Your task to perform on an android device: turn off sleep mode Image 0: 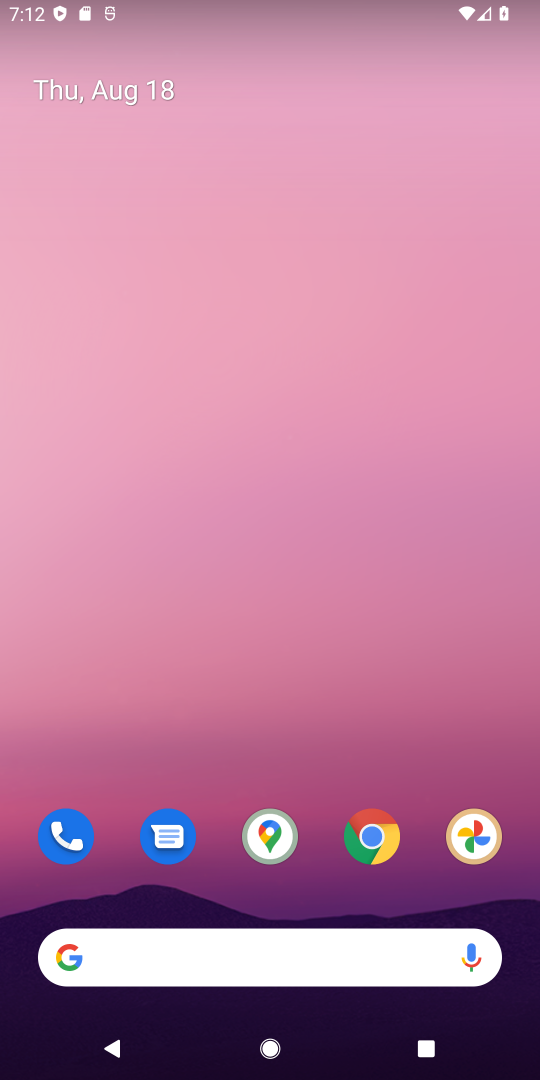
Step 0: drag from (306, 729) to (421, 35)
Your task to perform on an android device: turn off sleep mode Image 1: 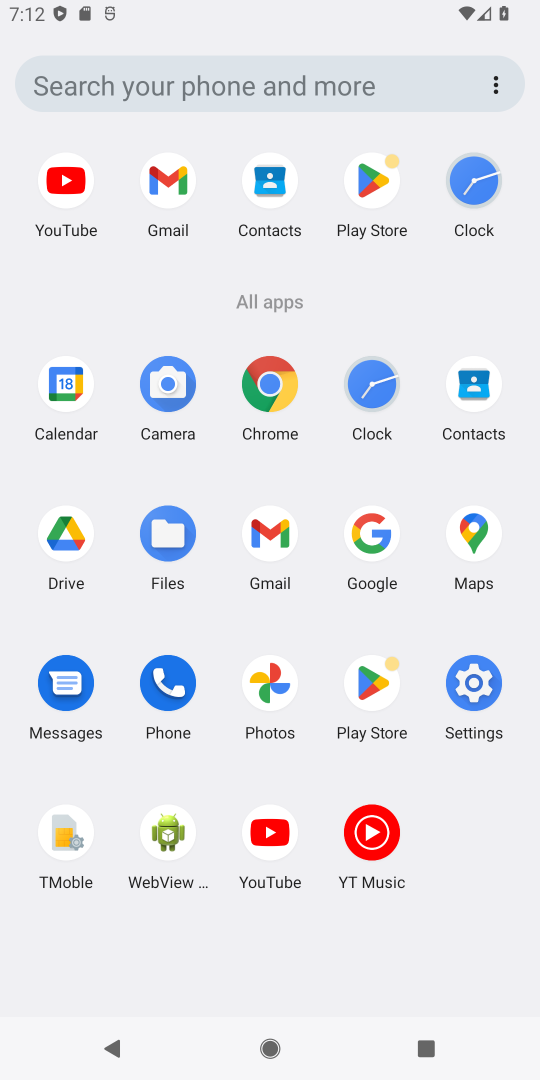
Step 1: click (475, 664)
Your task to perform on an android device: turn off sleep mode Image 2: 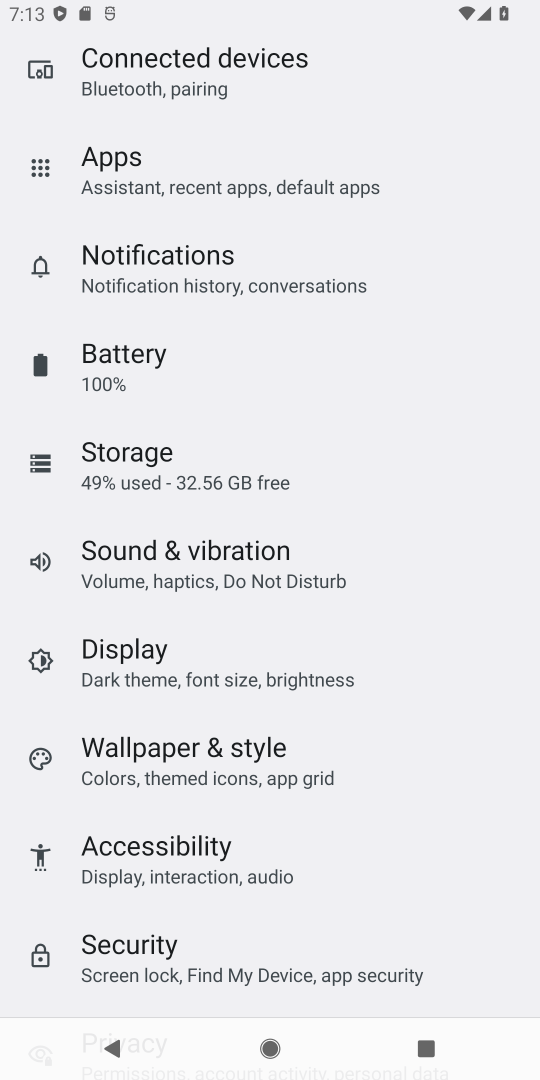
Step 2: click (139, 643)
Your task to perform on an android device: turn off sleep mode Image 3: 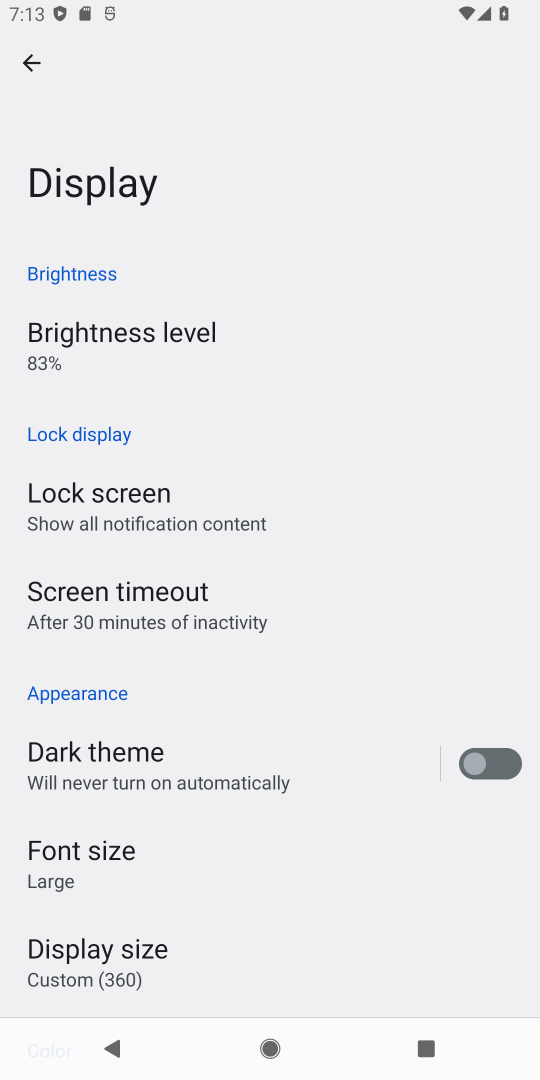
Step 3: click (151, 613)
Your task to perform on an android device: turn off sleep mode Image 4: 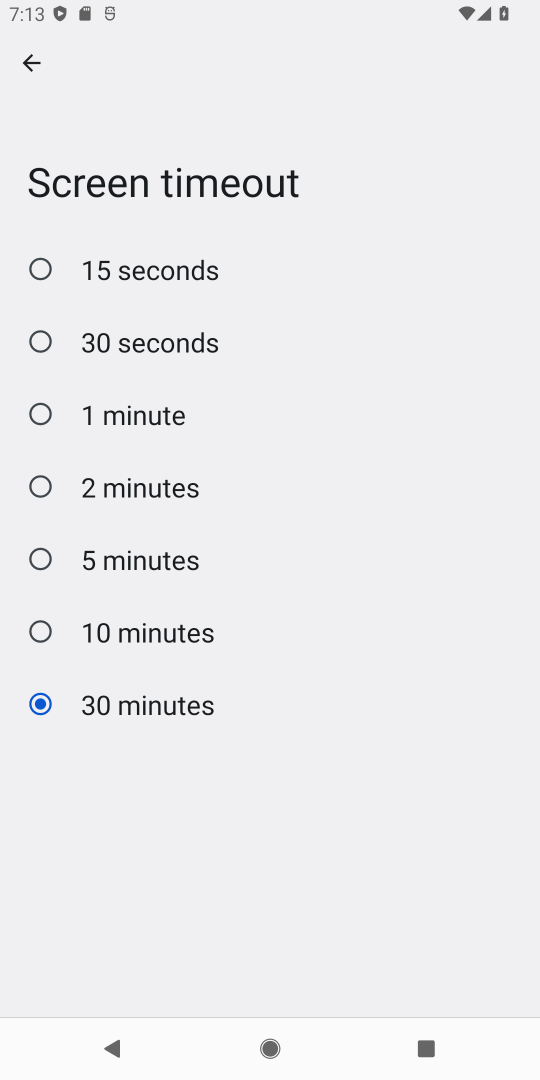
Step 4: task complete